Your task to perform on an android device: turn off javascript in the chrome app Image 0: 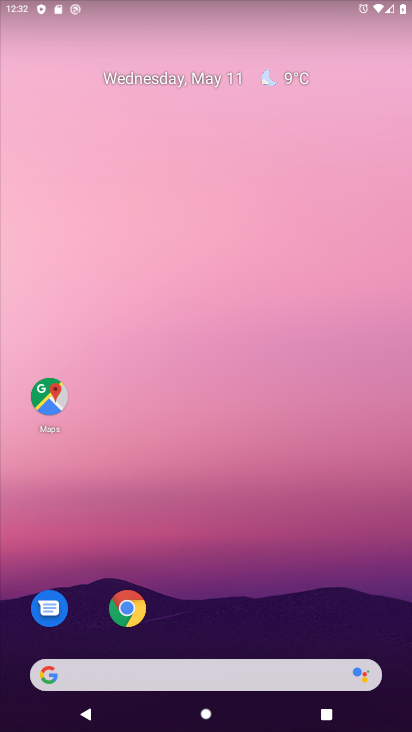
Step 0: drag from (236, 516) to (201, 74)
Your task to perform on an android device: turn off javascript in the chrome app Image 1: 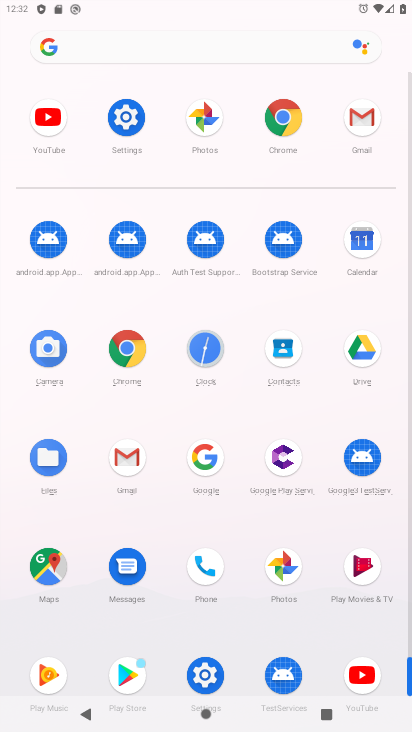
Step 1: click (291, 132)
Your task to perform on an android device: turn off javascript in the chrome app Image 2: 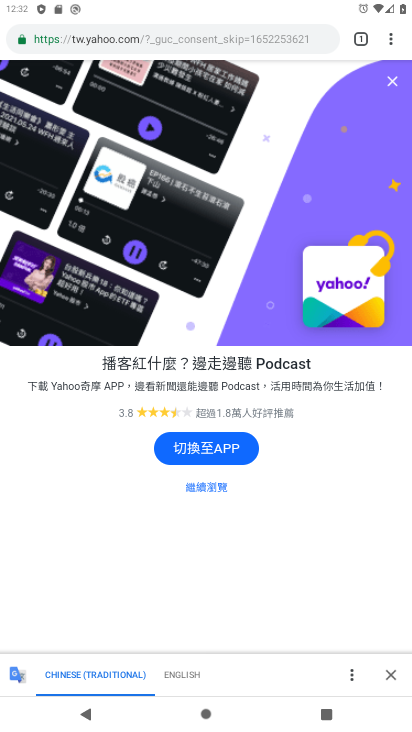
Step 2: click (397, 38)
Your task to perform on an android device: turn off javascript in the chrome app Image 3: 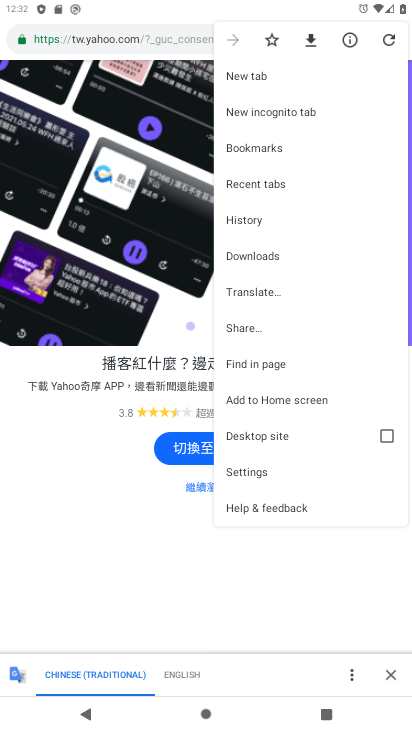
Step 3: click (267, 476)
Your task to perform on an android device: turn off javascript in the chrome app Image 4: 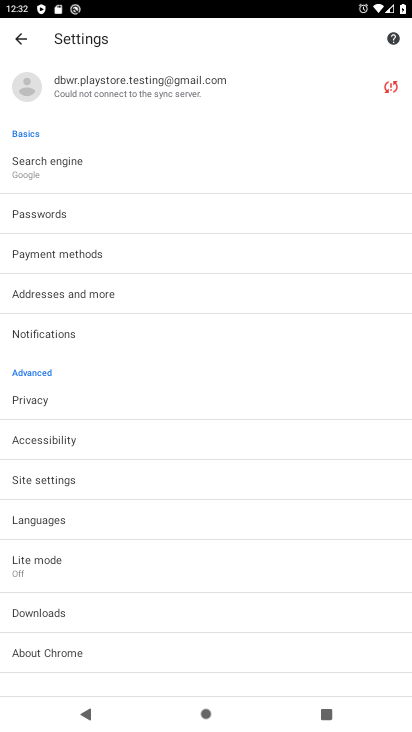
Step 4: click (128, 477)
Your task to perform on an android device: turn off javascript in the chrome app Image 5: 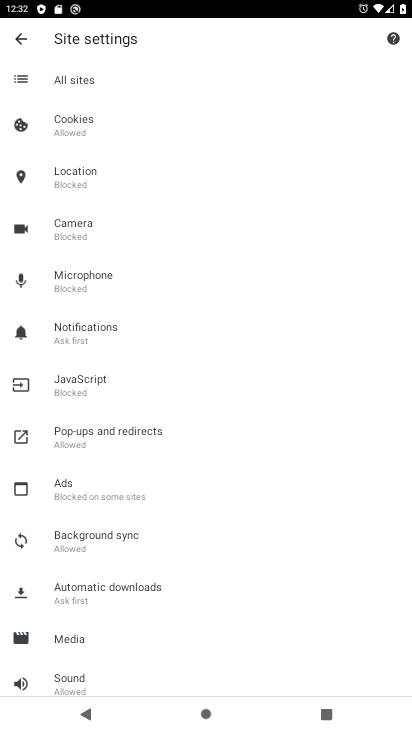
Step 5: click (128, 384)
Your task to perform on an android device: turn off javascript in the chrome app Image 6: 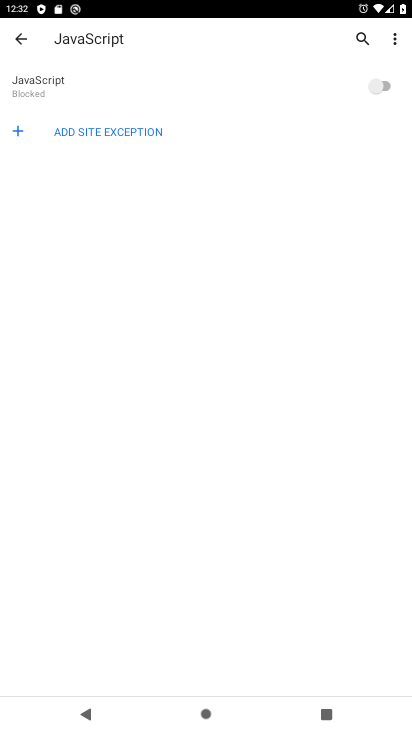
Step 6: task complete